Your task to perform on an android device: Find coffee shops on Maps Image 0: 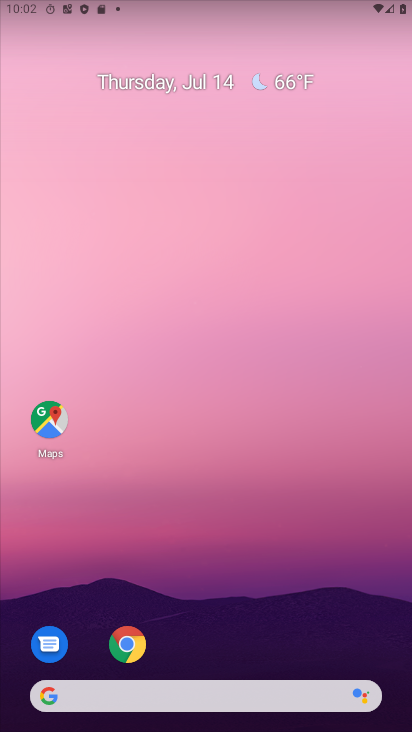
Step 0: drag from (266, 682) to (252, 260)
Your task to perform on an android device: Find coffee shops on Maps Image 1: 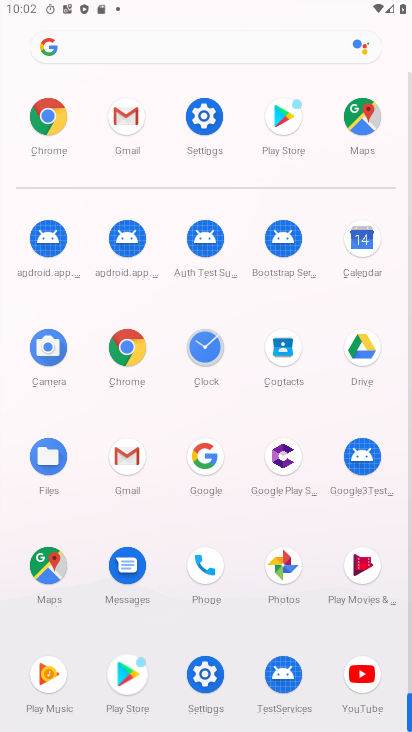
Step 1: click (82, 549)
Your task to perform on an android device: Find coffee shops on Maps Image 2: 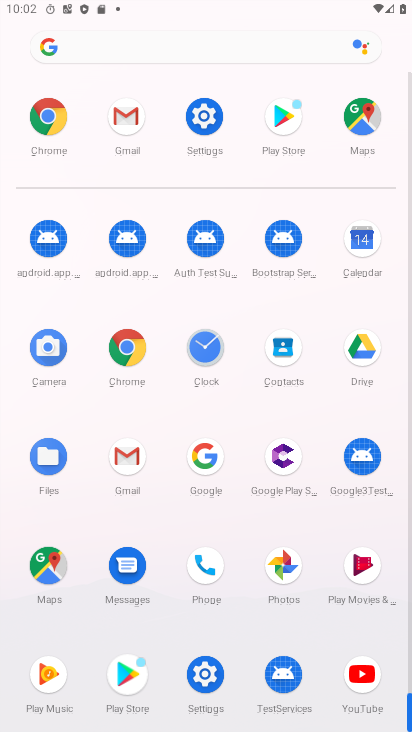
Step 2: click (44, 561)
Your task to perform on an android device: Find coffee shops on Maps Image 3: 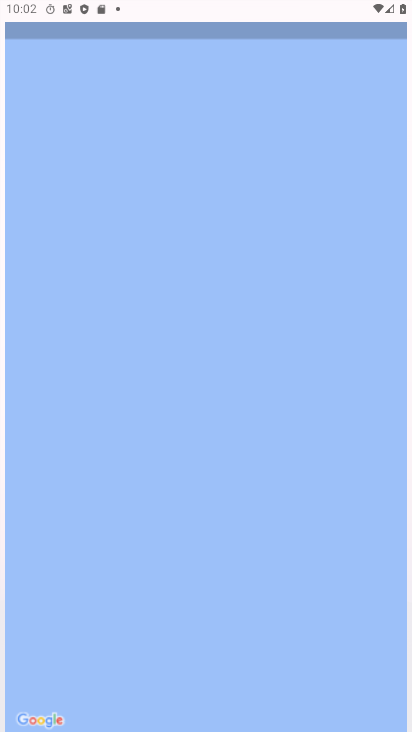
Step 3: click (43, 562)
Your task to perform on an android device: Find coffee shops on Maps Image 4: 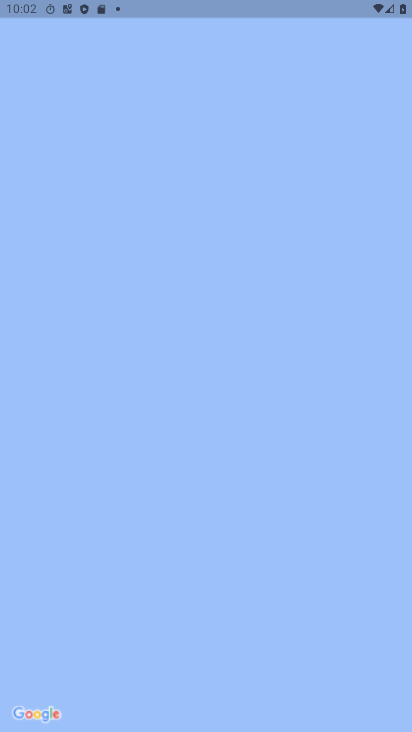
Step 4: click (42, 562)
Your task to perform on an android device: Find coffee shops on Maps Image 5: 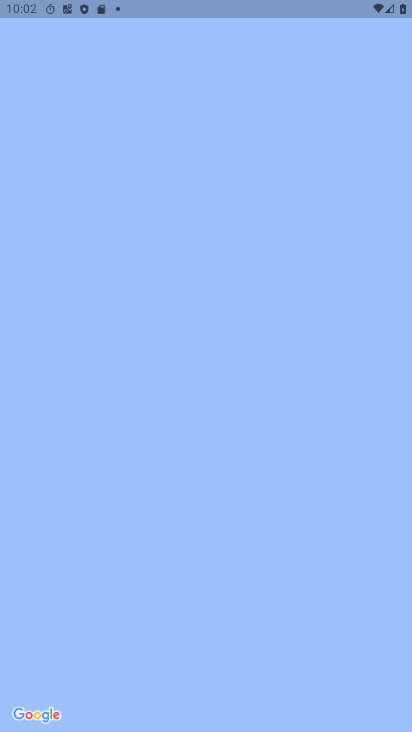
Step 5: click (96, 215)
Your task to perform on an android device: Find coffee shops on Maps Image 6: 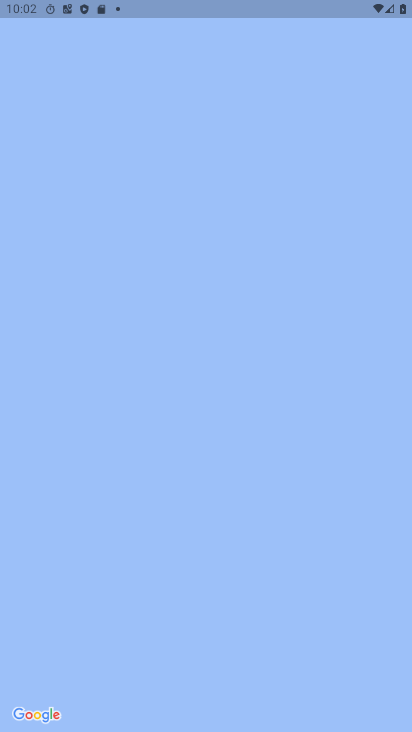
Step 6: click (96, 215)
Your task to perform on an android device: Find coffee shops on Maps Image 7: 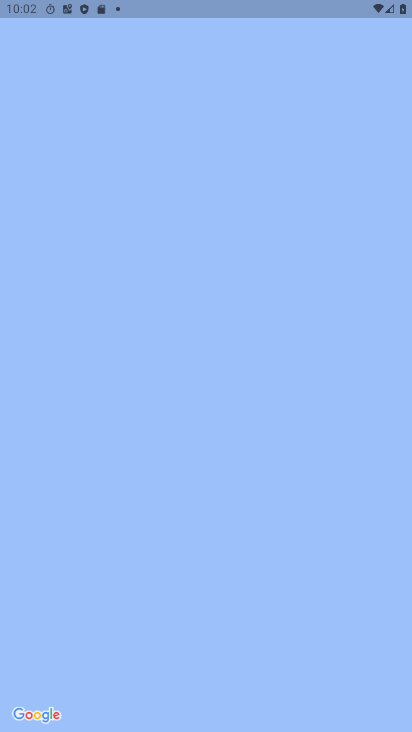
Step 7: click (96, 220)
Your task to perform on an android device: Find coffee shops on Maps Image 8: 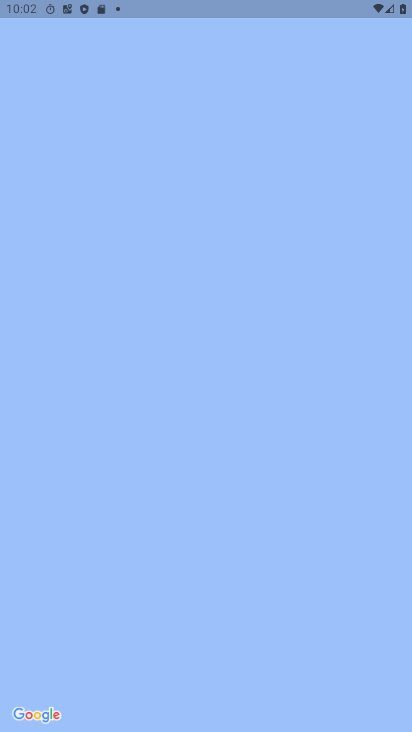
Step 8: click (96, 220)
Your task to perform on an android device: Find coffee shops on Maps Image 9: 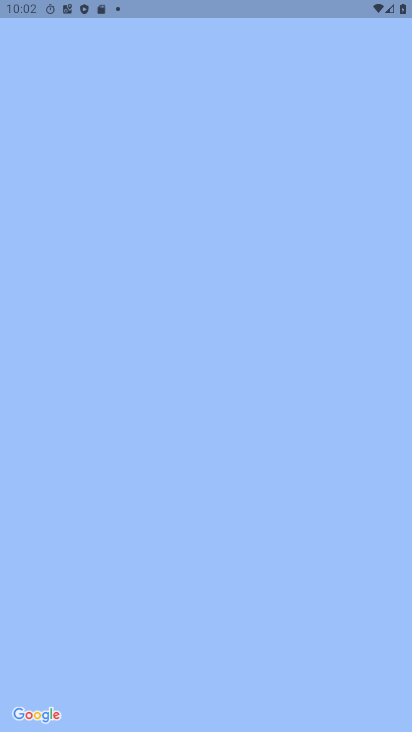
Step 9: click (107, 208)
Your task to perform on an android device: Find coffee shops on Maps Image 10: 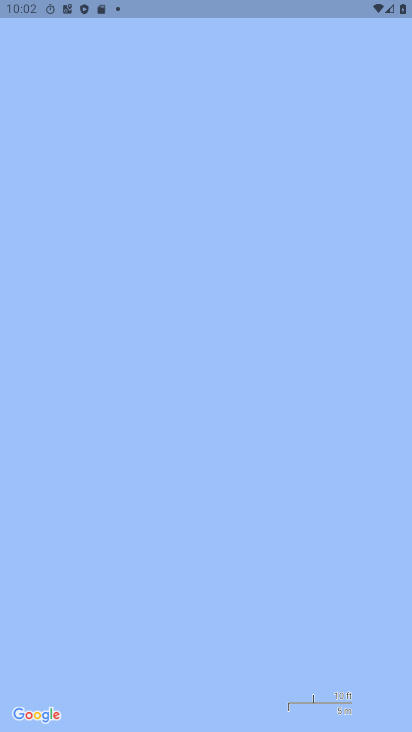
Step 10: click (107, 208)
Your task to perform on an android device: Find coffee shops on Maps Image 11: 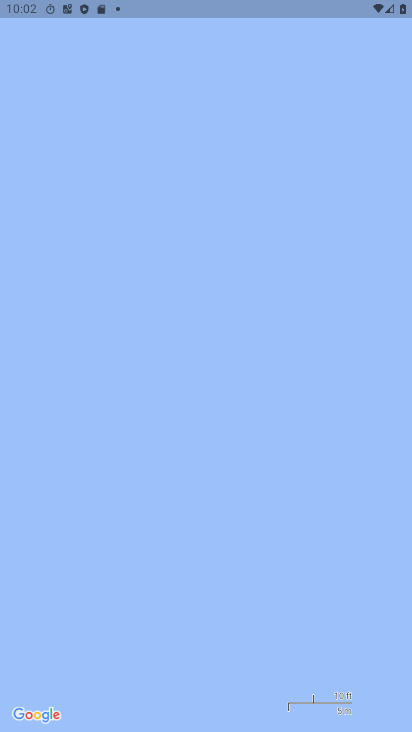
Step 11: click (109, 211)
Your task to perform on an android device: Find coffee shops on Maps Image 12: 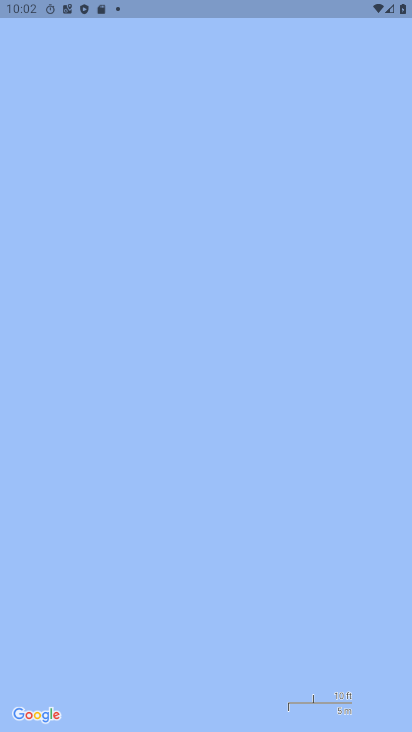
Step 12: drag from (148, 465) to (170, 268)
Your task to perform on an android device: Find coffee shops on Maps Image 13: 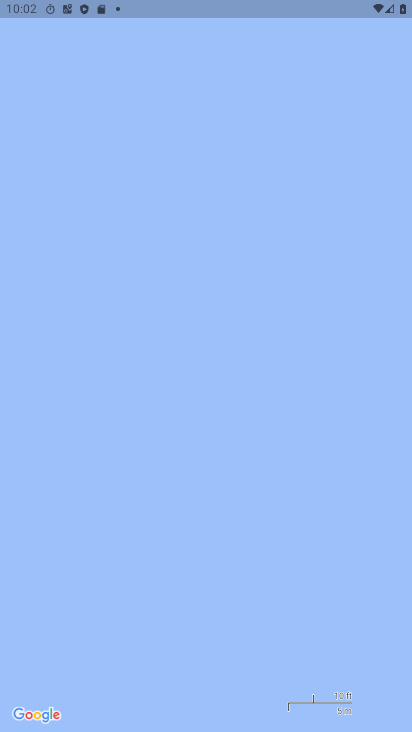
Step 13: drag from (188, 534) to (121, 581)
Your task to perform on an android device: Find coffee shops on Maps Image 14: 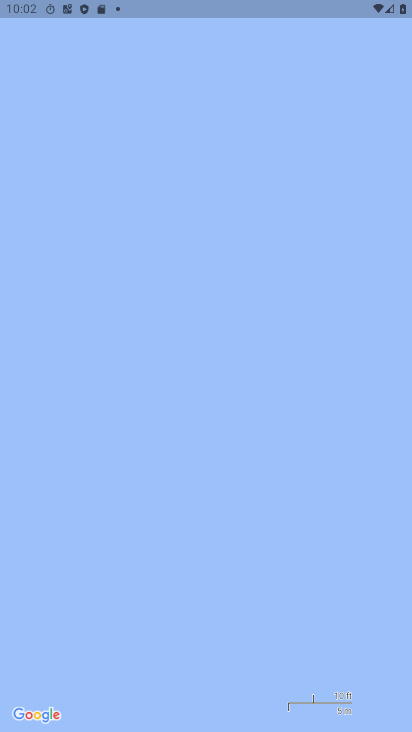
Step 14: drag from (134, 172) to (147, 346)
Your task to perform on an android device: Find coffee shops on Maps Image 15: 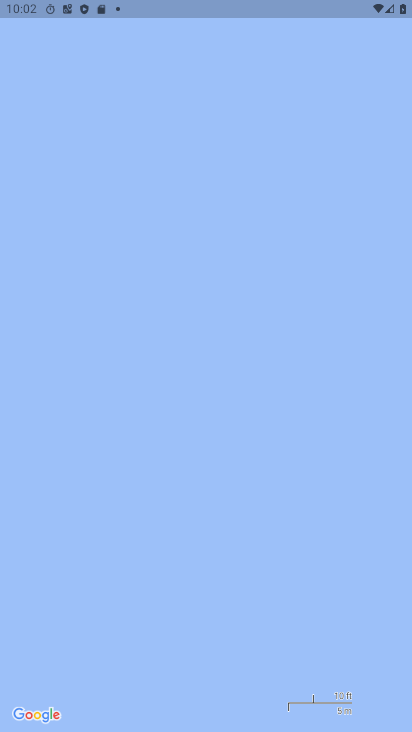
Step 15: click (142, 159)
Your task to perform on an android device: Find coffee shops on Maps Image 16: 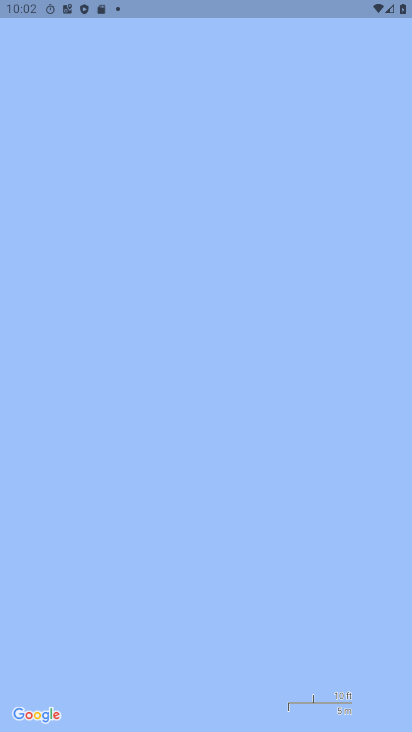
Step 16: click (146, 180)
Your task to perform on an android device: Find coffee shops on Maps Image 17: 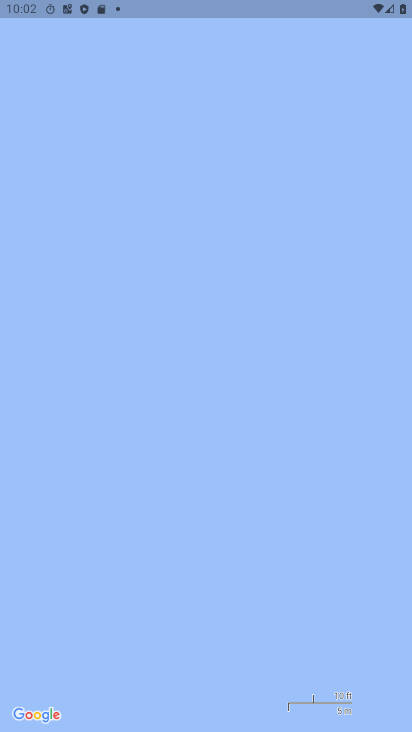
Step 17: click (146, 181)
Your task to perform on an android device: Find coffee shops on Maps Image 18: 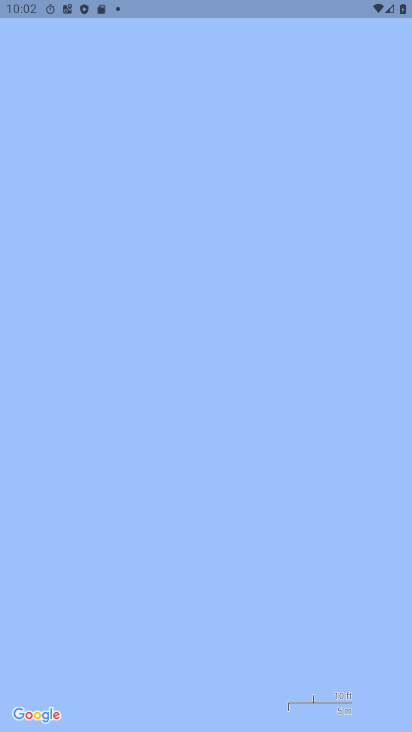
Step 18: task complete